Your task to perform on an android device: Open the calendar app, open the side menu, and click the "Day" option Image 0: 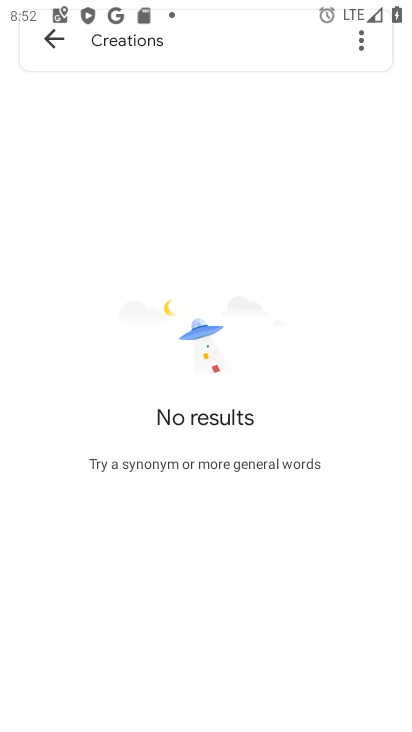
Step 0: press home button
Your task to perform on an android device: Open the calendar app, open the side menu, and click the "Day" option Image 1: 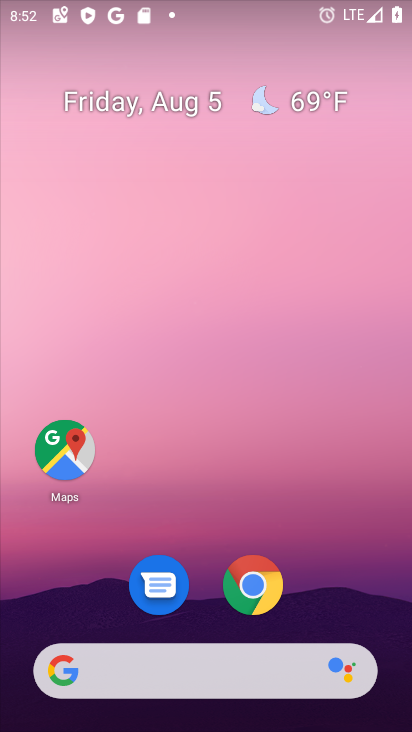
Step 1: drag from (203, 523) to (221, 1)
Your task to perform on an android device: Open the calendar app, open the side menu, and click the "Day" option Image 2: 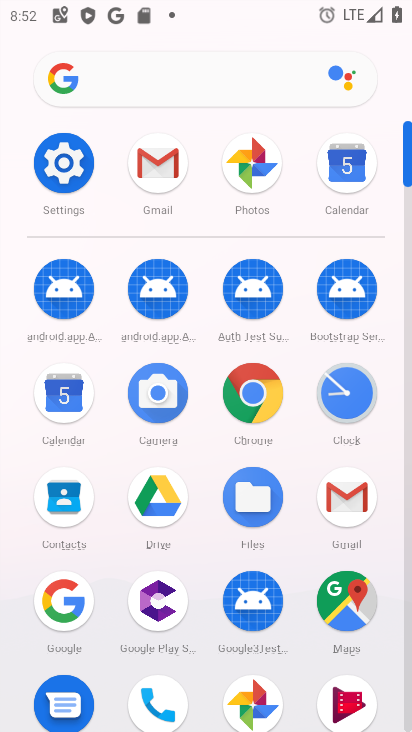
Step 2: click (351, 169)
Your task to perform on an android device: Open the calendar app, open the side menu, and click the "Day" option Image 3: 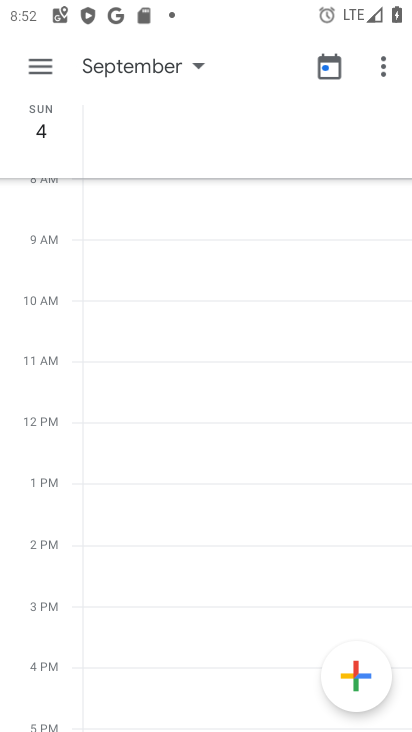
Step 3: drag from (276, 306) to (278, 580)
Your task to perform on an android device: Open the calendar app, open the side menu, and click the "Day" option Image 4: 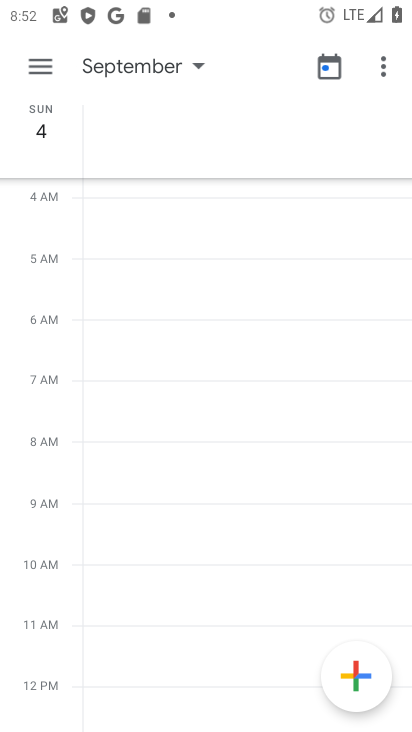
Step 4: drag from (221, 261) to (205, 526)
Your task to perform on an android device: Open the calendar app, open the side menu, and click the "Day" option Image 5: 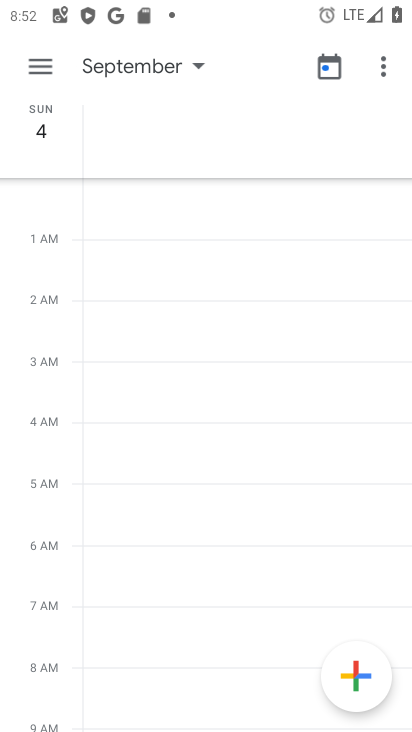
Step 5: click (42, 69)
Your task to perform on an android device: Open the calendar app, open the side menu, and click the "Day" option Image 6: 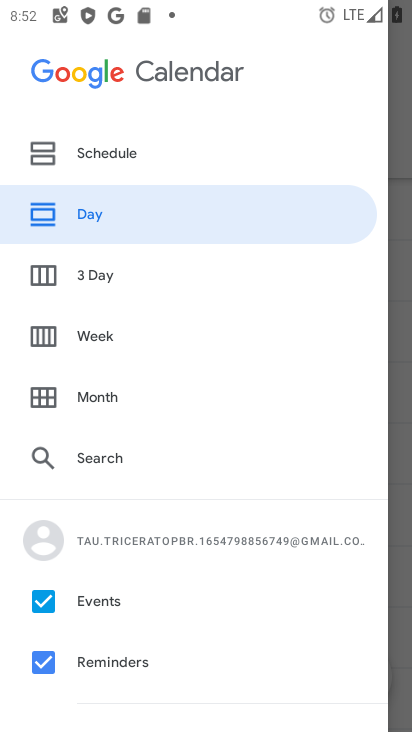
Step 6: click (82, 196)
Your task to perform on an android device: Open the calendar app, open the side menu, and click the "Day" option Image 7: 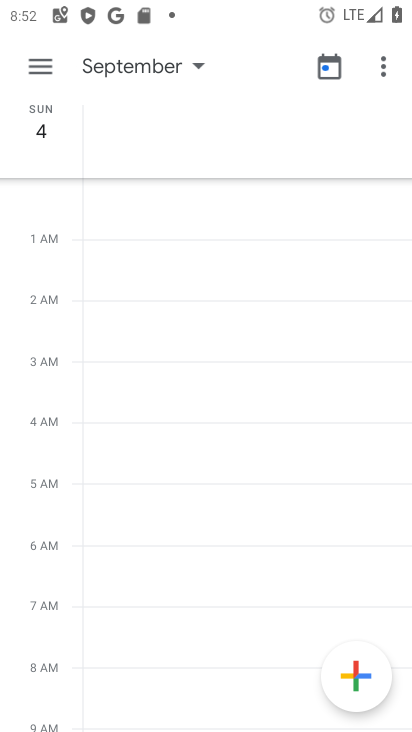
Step 7: task complete